Your task to perform on an android device: Go to settings Image 0: 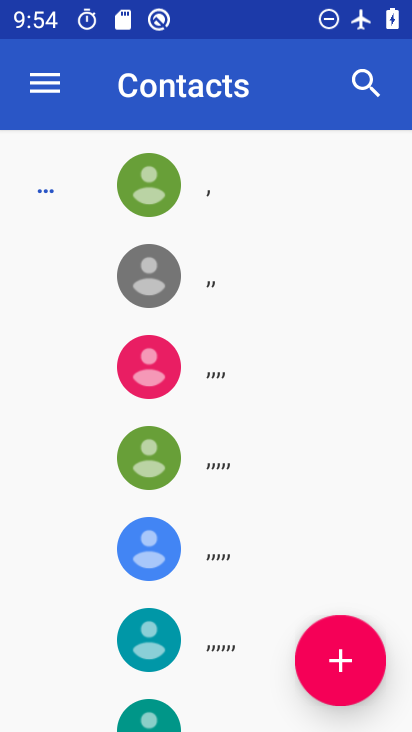
Step 0: press home button
Your task to perform on an android device: Go to settings Image 1: 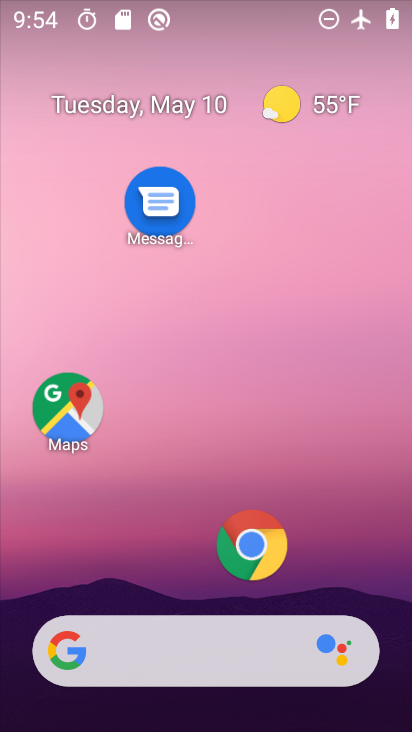
Step 1: drag from (170, 593) to (164, 104)
Your task to perform on an android device: Go to settings Image 2: 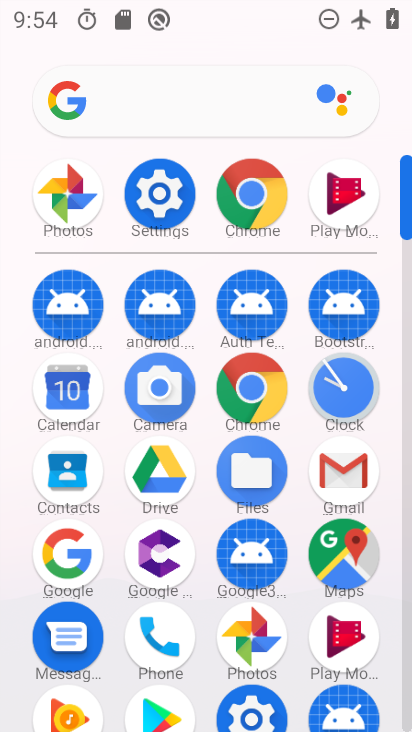
Step 2: click (163, 164)
Your task to perform on an android device: Go to settings Image 3: 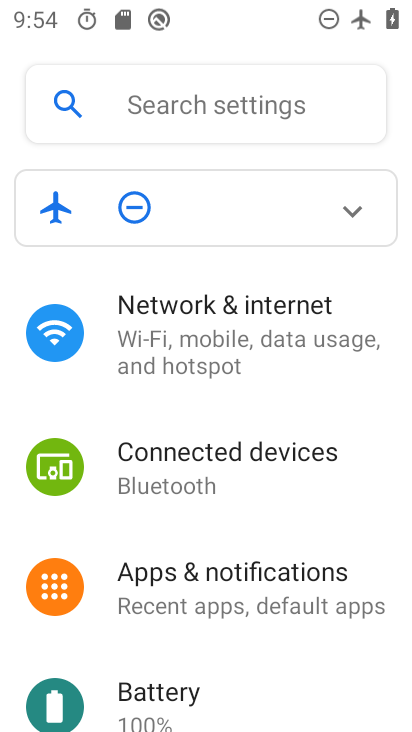
Step 3: task complete